Your task to perform on an android device: delete a single message in the gmail app Image 0: 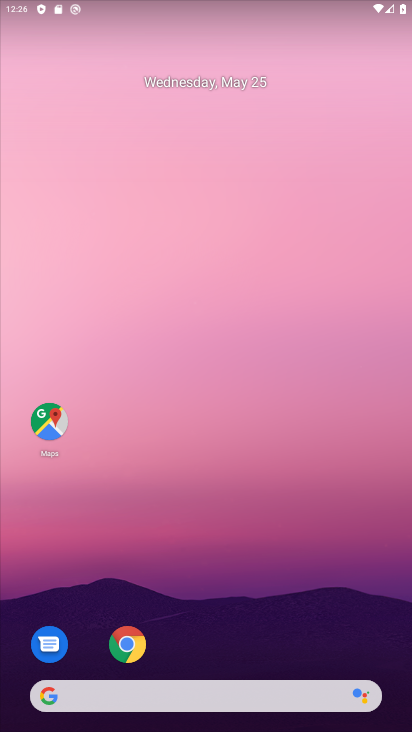
Step 0: drag from (197, 594) to (63, 159)
Your task to perform on an android device: delete a single message in the gmail app Image 1: 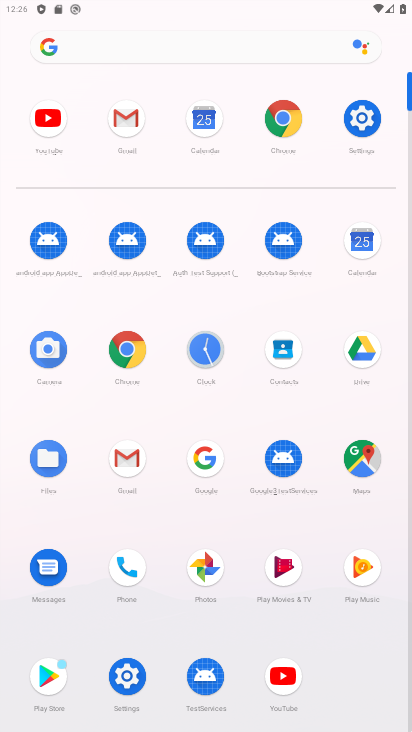
Step 1: click (114, 458)
Your task to perform on an android device: delete a single message in the gmail app Image 2: 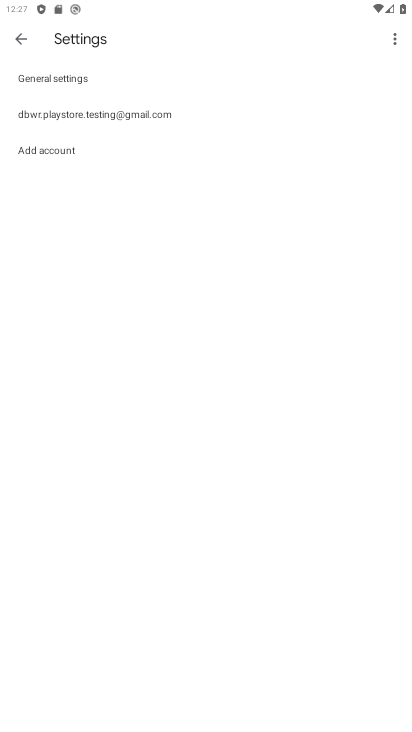
Step 2: click (6, 34)
Your task to perform on an android device: delete a single message in the gmail app Image 3: 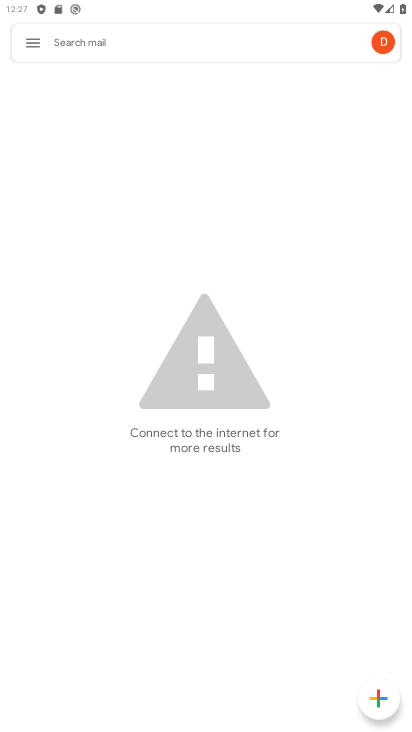
Step 3: click (21, 43)
Your task to perform on an android device: delete a single message in the gmail app Image 4: 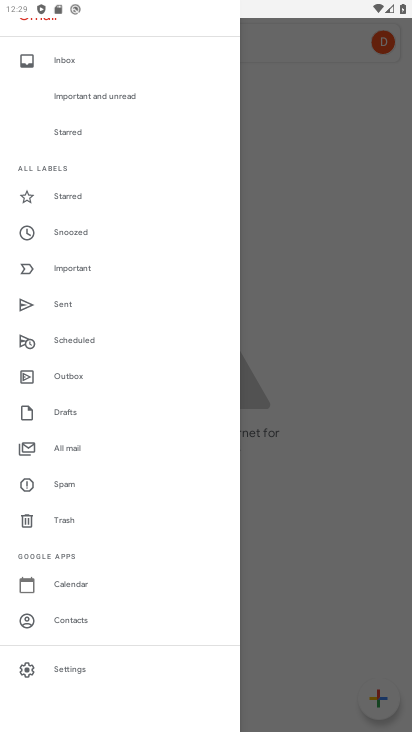
Step 4: drag from (84, 349) to (37, 25)
Your task to perform on an android device: delete a single message in the gmail app Image 5: 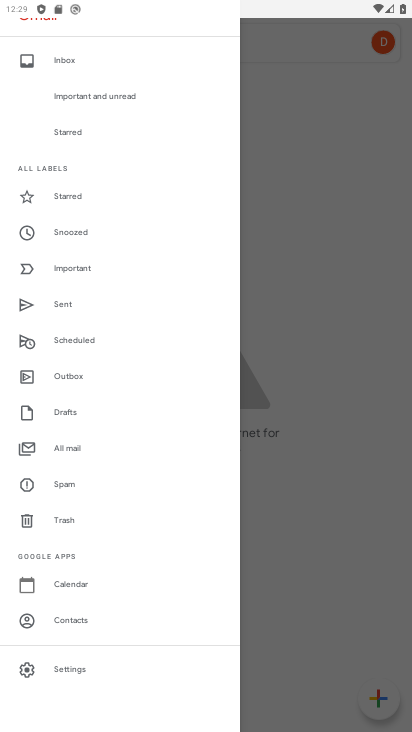
Step 5: click (332, 496)
Your task to perform on an android device: delete a single message in the gmail app Image 6: 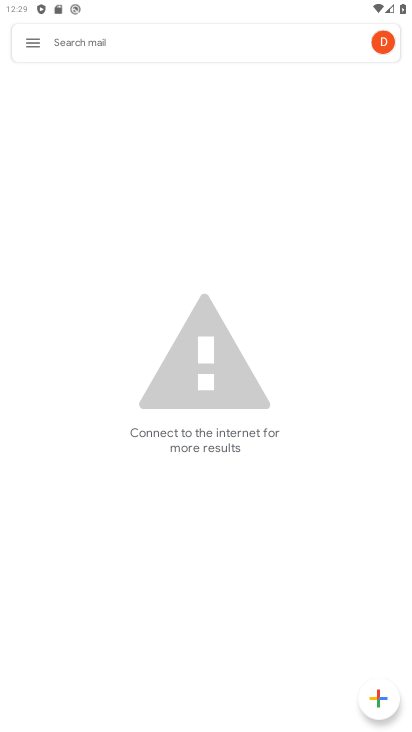
Step 6: click (34, 38)
Your task to perform on an android device: delete a single message in the gmail app Image 7: 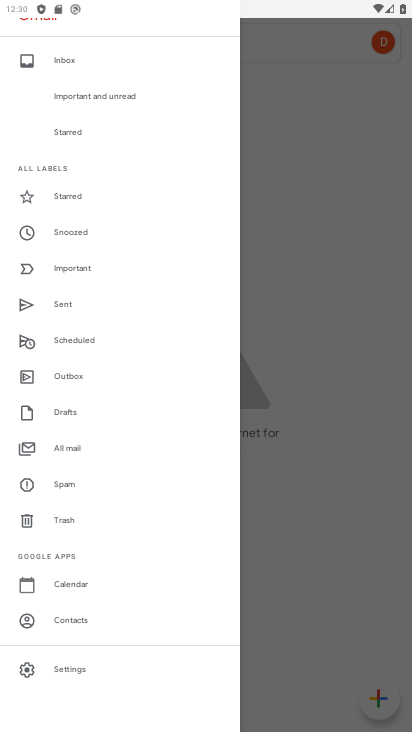
Step 7: click (74, 448)
Your task to perform on an android device: delete a single message in the gmail app Image 8: 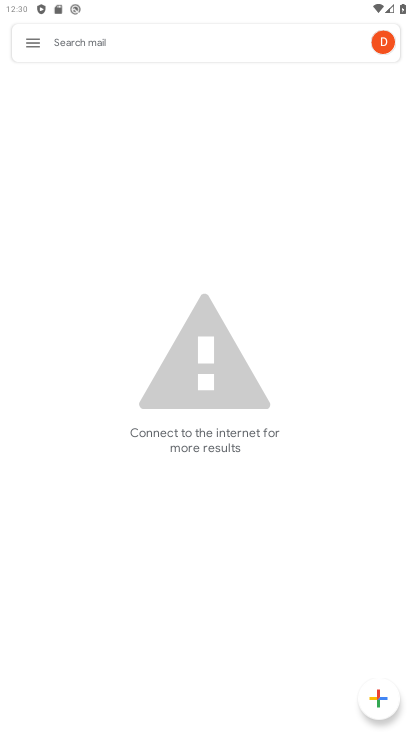
Step 8: task complete